Your task to perform on an android device: uninstall "Google Play Music" Image 0: 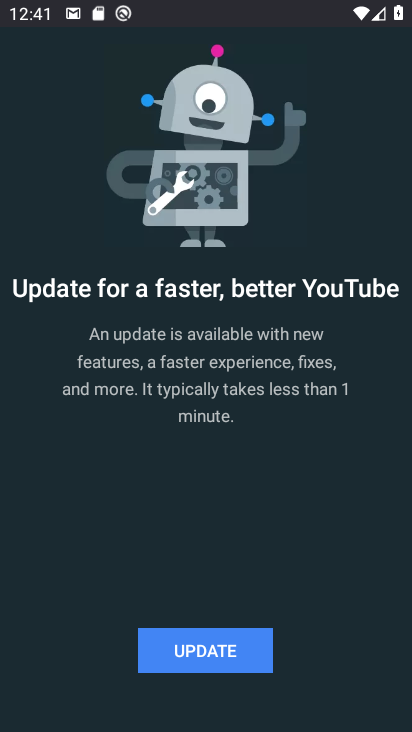
Step 0: task complete